Your task to perform on an android device: check out phone information Image 0: 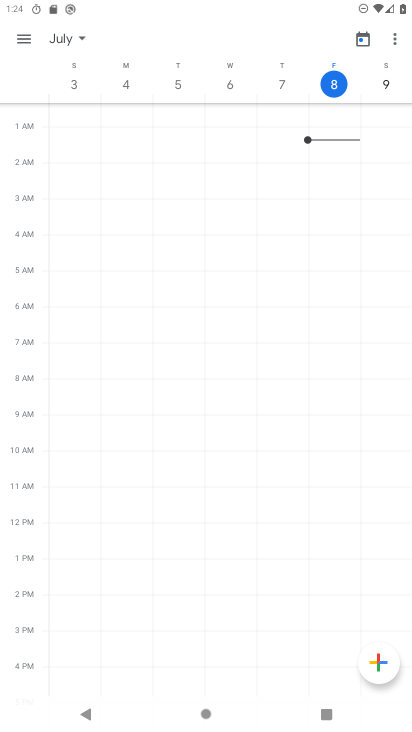
Step 0: press home button
Your task to perform on an android device: check out phone information Image 1: 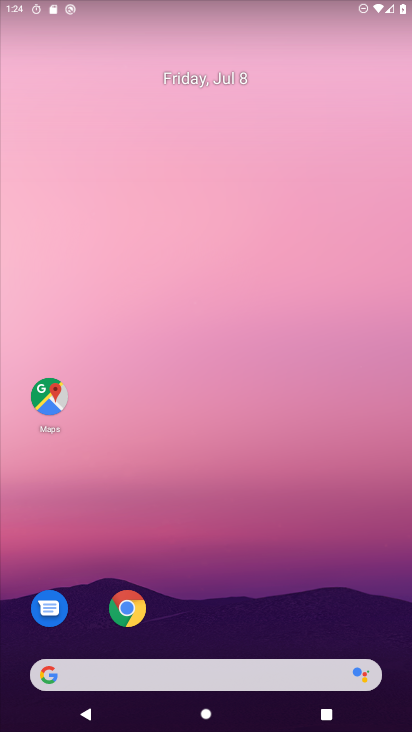
Step 1: drag from (234, 685) to (238, 238)
Your task to perform on an android device: check out phone information Image 2: 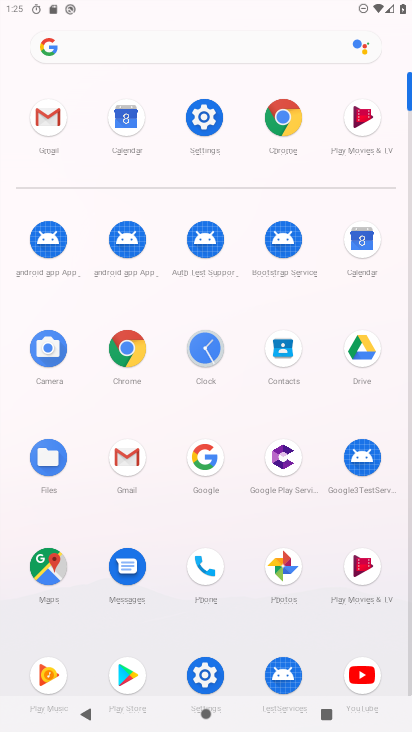
Step 2: click (212, 109)
Your task to perform on an android device: check out phone information Image 3: 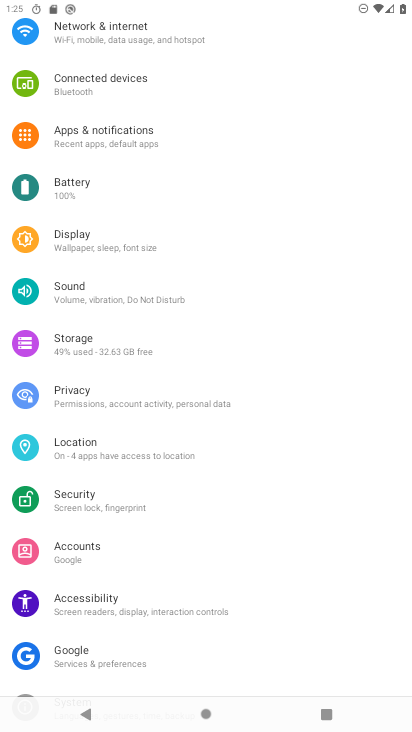
Step 3: drag from (158, 659) to (149, 255)
Your task to perform on an android device: check out phone information Image 4: 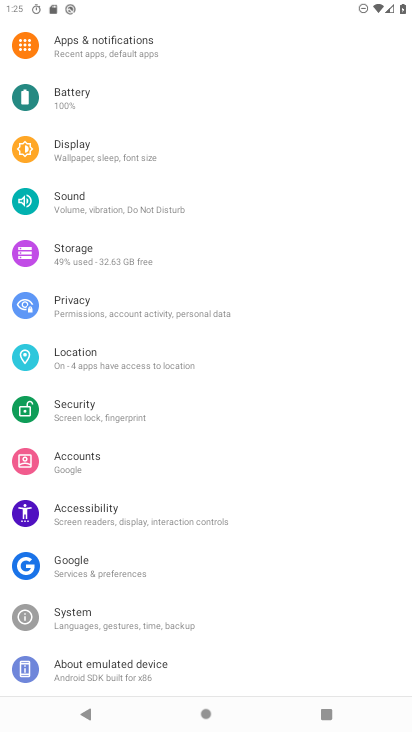
Step 4: click (101, 660)
Your task to perform on an android device: check out phone information Image 5: 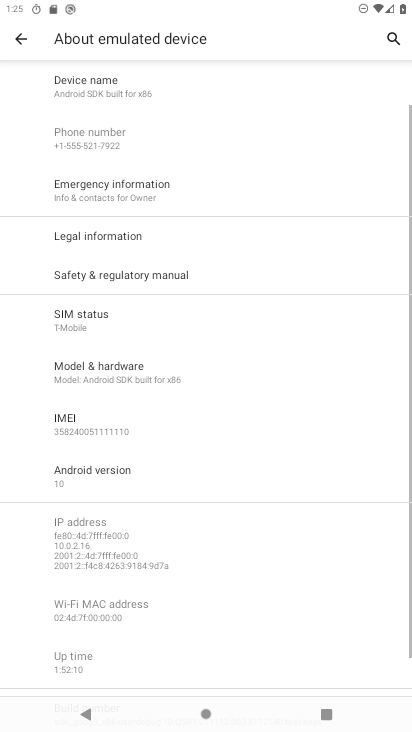
Step 5: task complete